Your task to perform on an android device: open app "eBay: The shopping marketplace" (install if not already installed) Image 0: 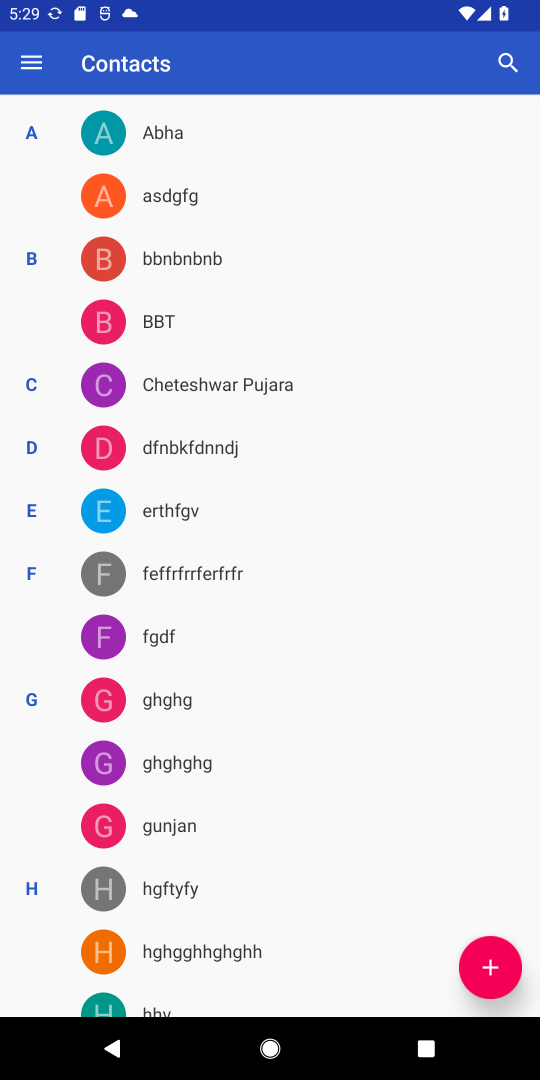
Step 0: press home button
Your task to perform on an android device: open app "eBay: The shopping marketplace" (install if not already installed) Image 1: 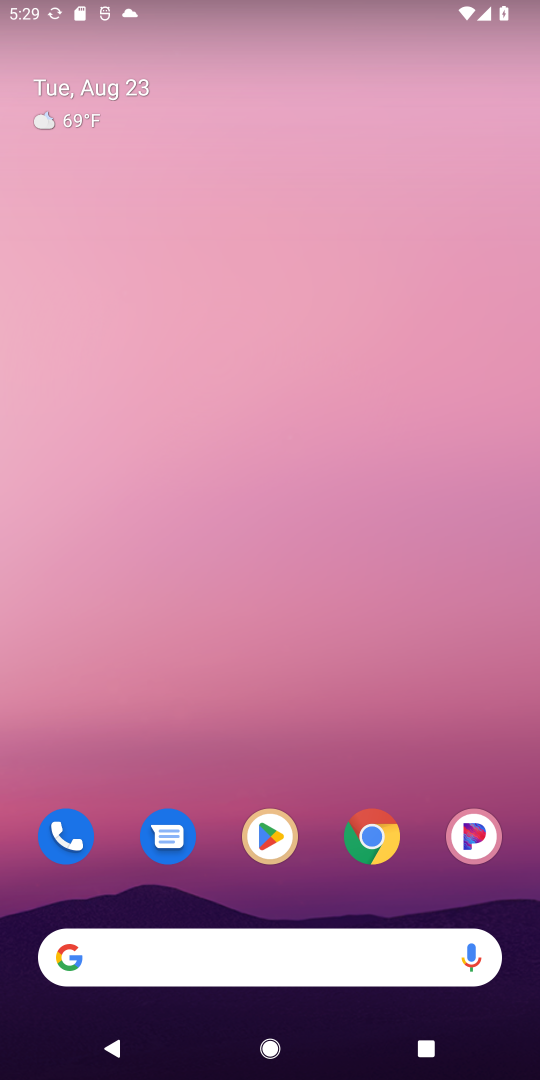
Step 1: click (275, 834)
Your task to perform on an android device: open app "eBay: The shopping marketplace" (install if not already installed) Image 2: 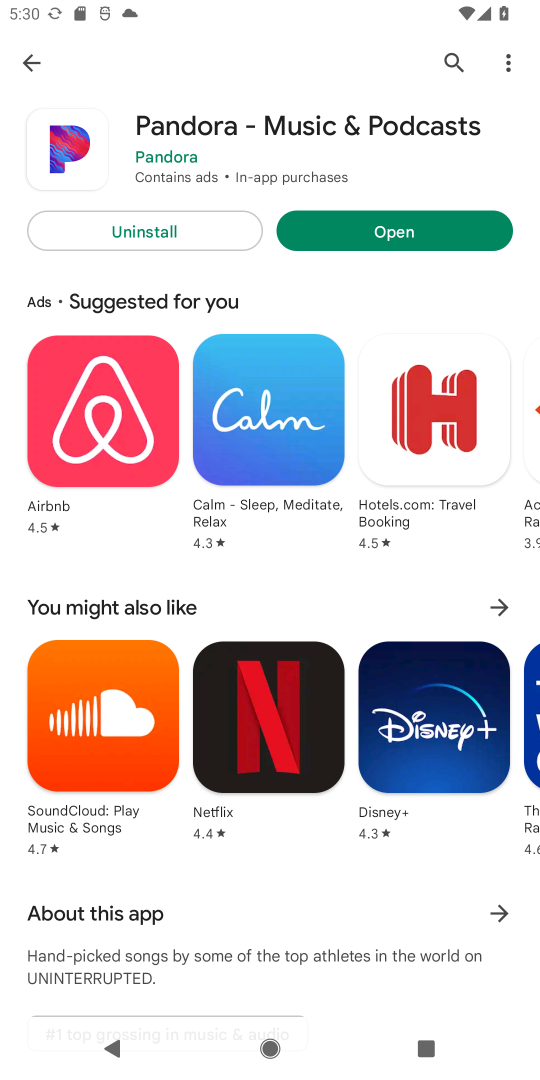
Step 2: click (448, 52)
Your task to perform on an android device: open app "eBay: The shopping marketplace" (install if not already installed) Image 3: 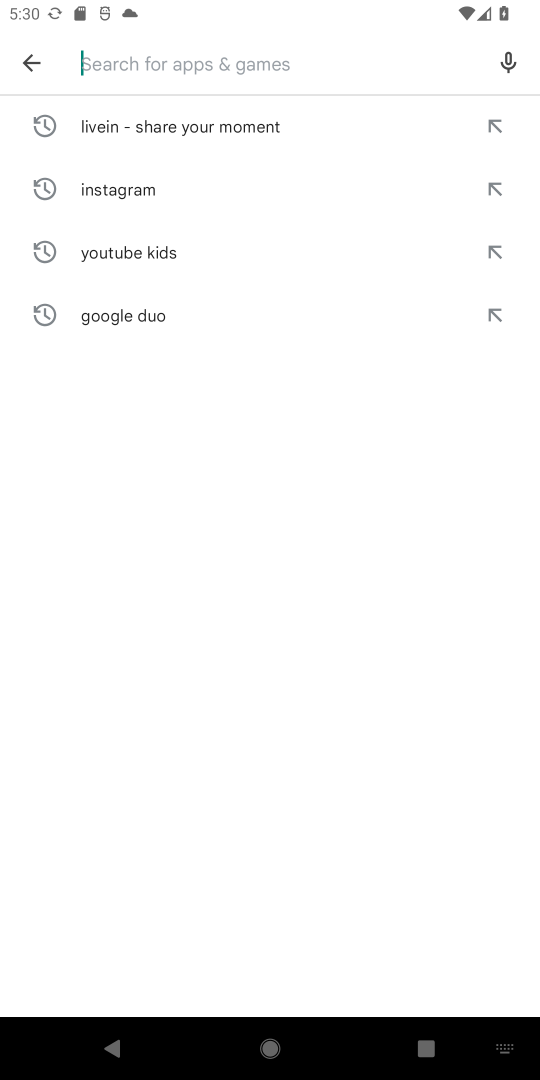
Step 3: type "eBay: The shopping marketplace"
Your task to perform on an android device: open app "eBay: The shopping marketplace" (install if not already installed) Image 4: 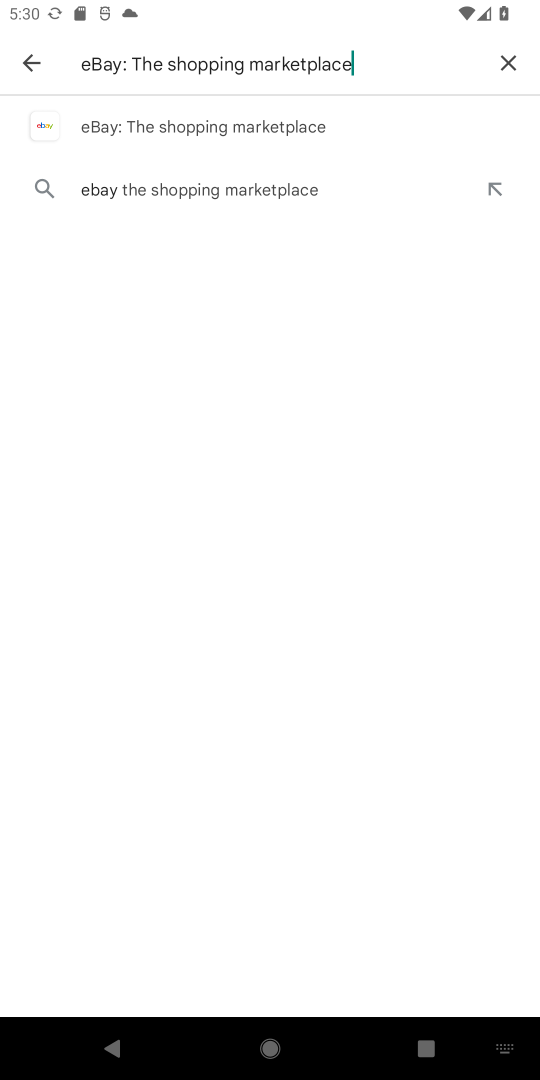
Step 4: click (188, 118)
Your task to perform on an android device: open app "eBay: The shopping marketplace" (install if not already installed) Image 5: 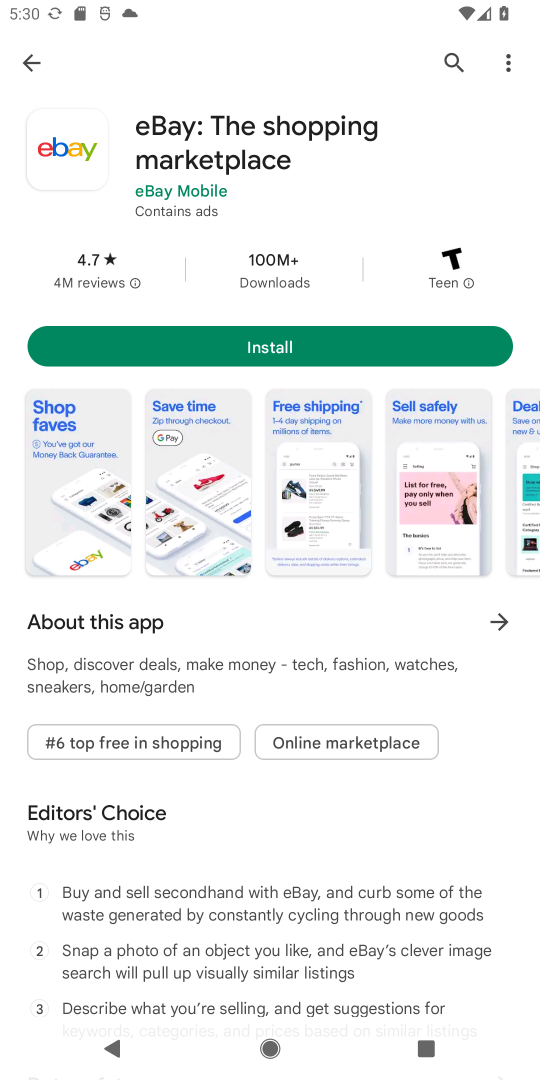
Step 5: click (267, 343)
Your task to perform on an android device: open app "eBay: The shopping marketplace" (install if not already installed) Image 6: 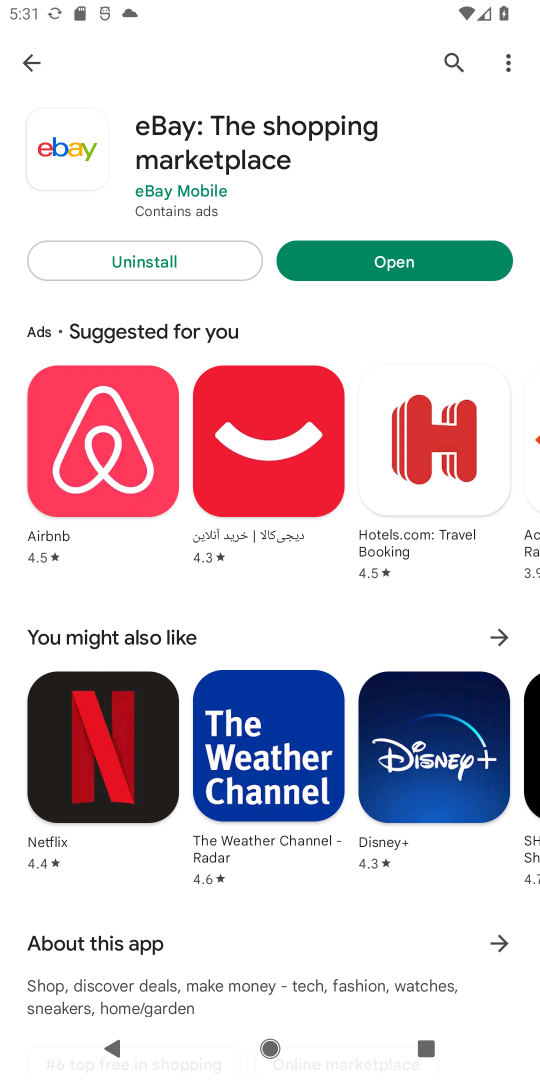
Step 6: click (386, 254)
Your task to perform on an android device: open app "eBay: The shopping marketplace" (install if not already installed) Image 7: 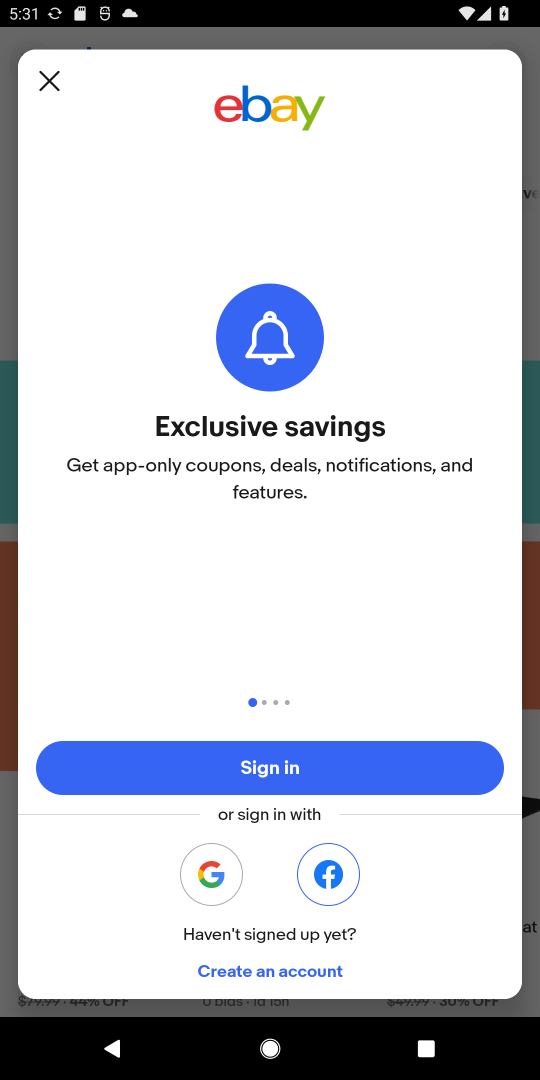
Step 7: task complete